Your task to perform on an android device: Find coffee shops on Maps Image 0: 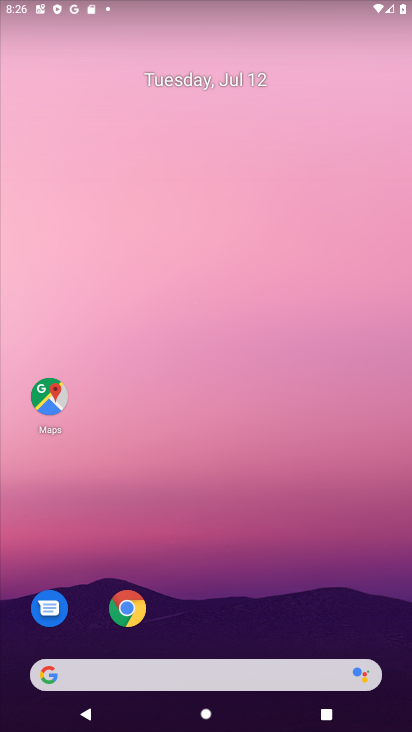
Step 0: click (44, 386)
Your task to perform on an android device: Find coffee shops on Maps Image 1: 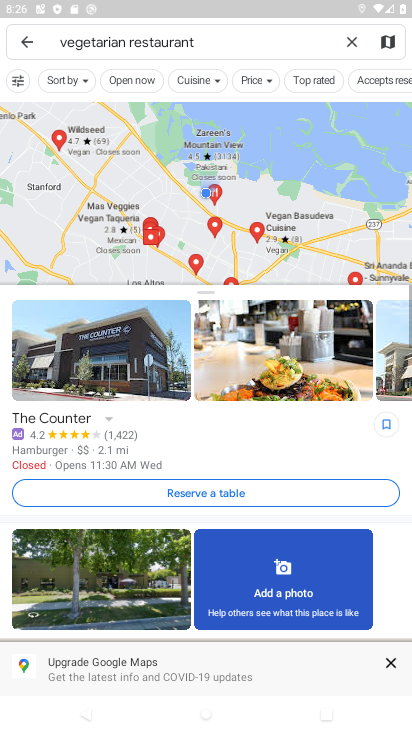
Step 1: click (357, 49)
Your task to perform on an android device: Find coffee shops on Maps Image 2: 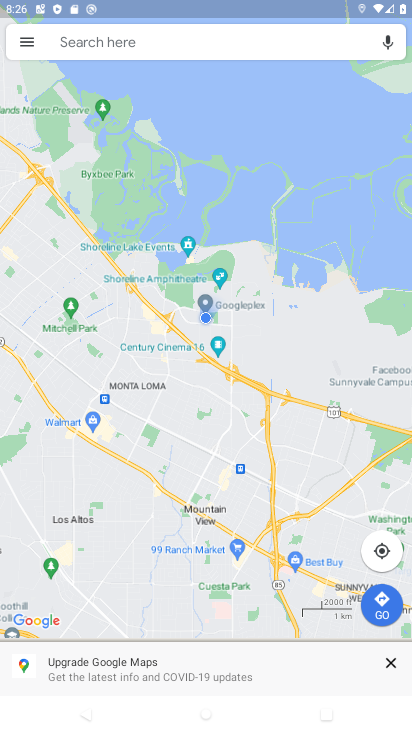
Step 2: click (289, 52)
Your task to perform on an android device: Find coffee shops on Maps Image 3: 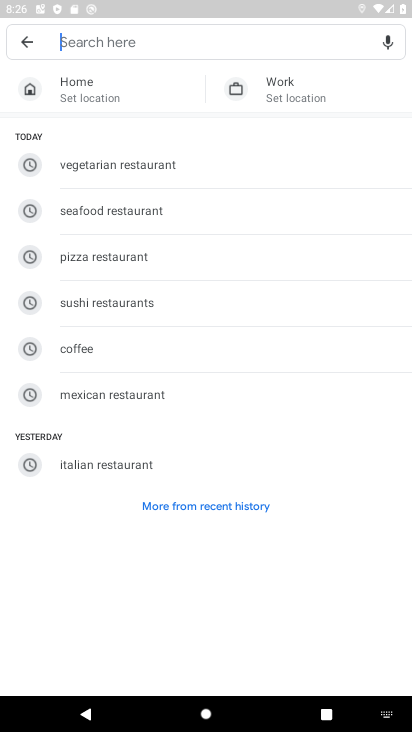
Step 3: click (189, 342)
Your task to perform on an android device: Find coffee shops on Maps Image 4: 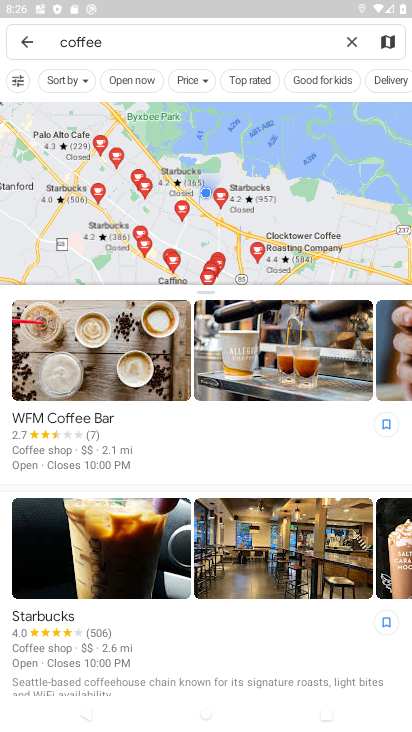
Step 4: task complete